Your task to perform on an android device: turn on priority inbox in the gmail app Image 0: 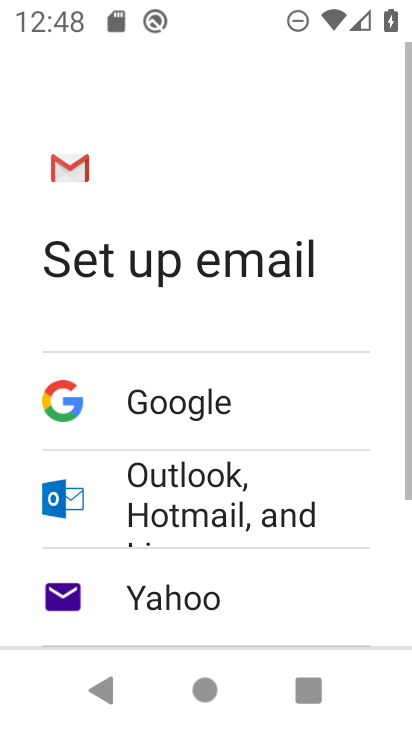
Step 0: press home button
Your task to perform on an android device: turn on priority inbox in the gmail app Image 1: 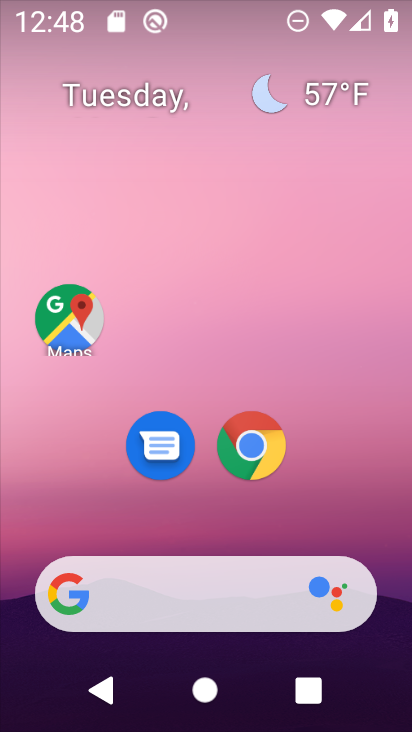
Step 1: drag from (360, 527) to (378, 189)
Your task to perform on an android device: turn on priority inbox in the gmail app Image 2: 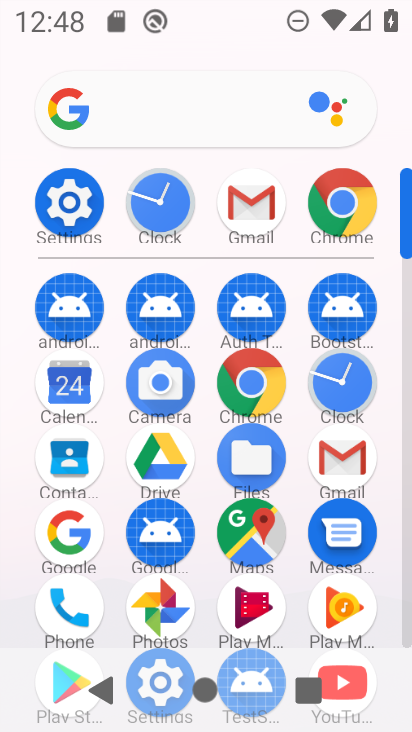
Step 2: click (340, 469)
Your task to perform on an android device: turn on priority inbox in the gmail app Image 3: 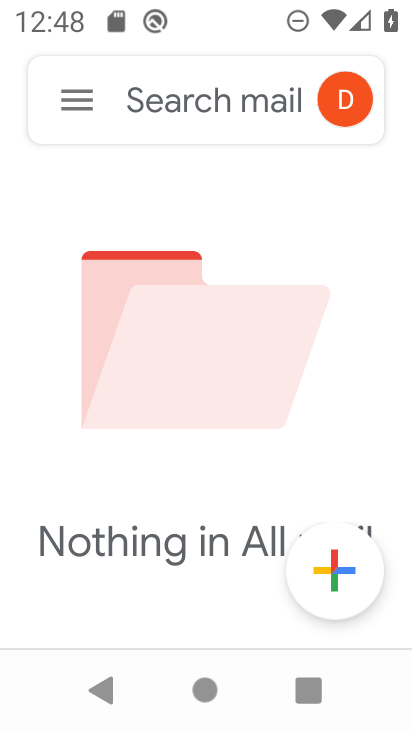
Step 3: click (72, 101)
Your task to perform on an android device: turn on priority inbox in the gmail app Image 4: 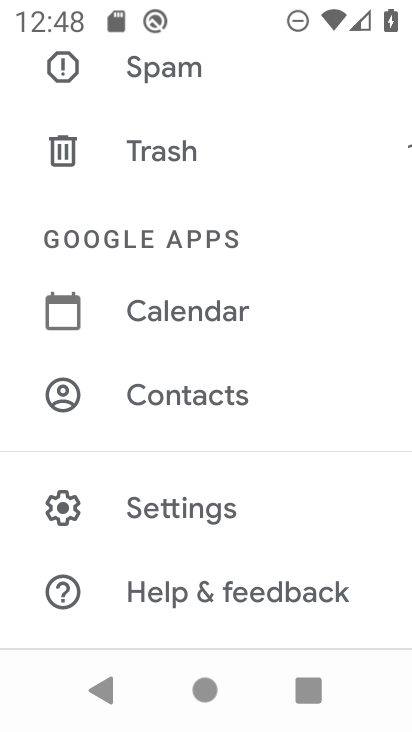
Step 4: drag from (314, 528) to (346, 390)
Your task to perform on an android device: turn on priority inbox in the gmail app Image 5: 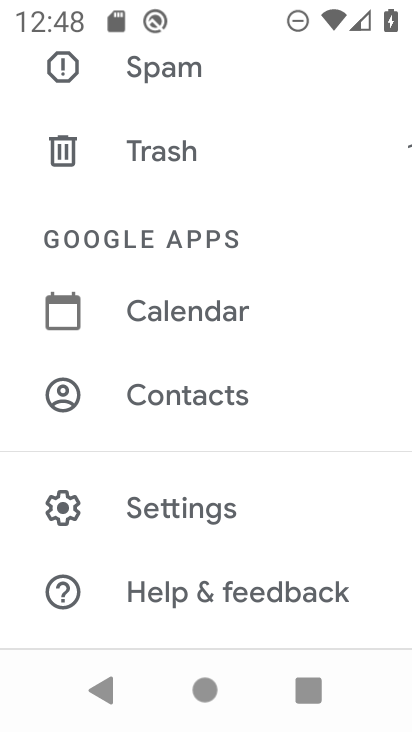
Step 5: click (249, 515)
Your task to perform on an android device: turn on priority inbox in the gmail app Image 6: 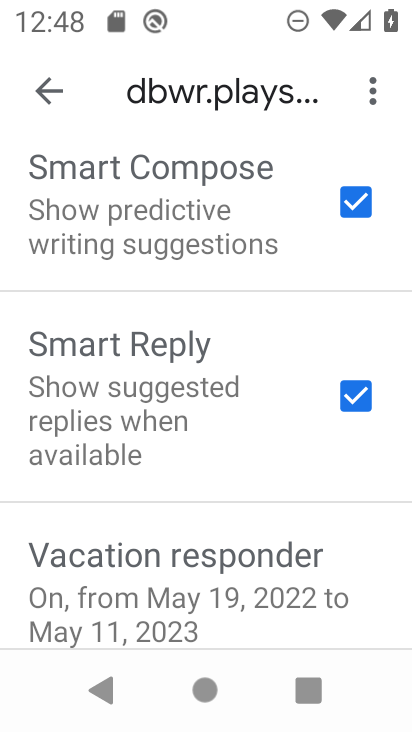
Step 6: drag from (300, 232) to (296, 381)
Your task to perform on an android device: turn on priority inbox in the gmail app Image 7: 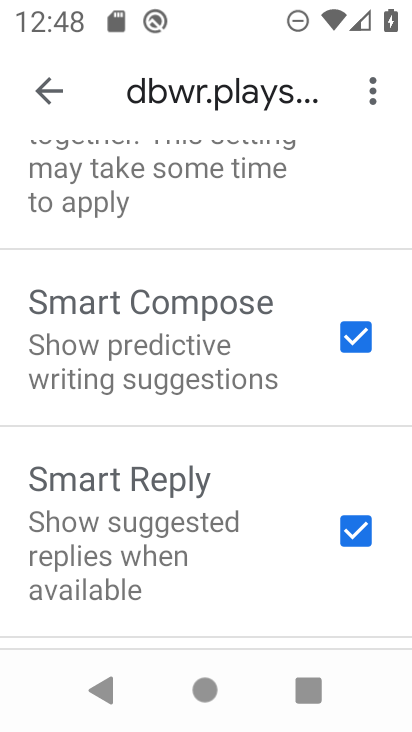
Step 7: drag from (316, 222) to (291, 377)
Your task to perform on an android device: turn on priority inbox in the gmail app Image 8: 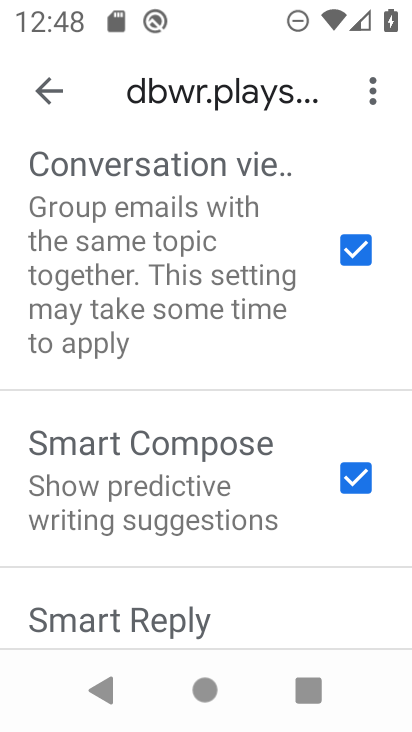
Step 8: drag from (297, 192) to (308, 353)
Your task to perform on an android device: turn on priority inbox in the gmail app Image 9: 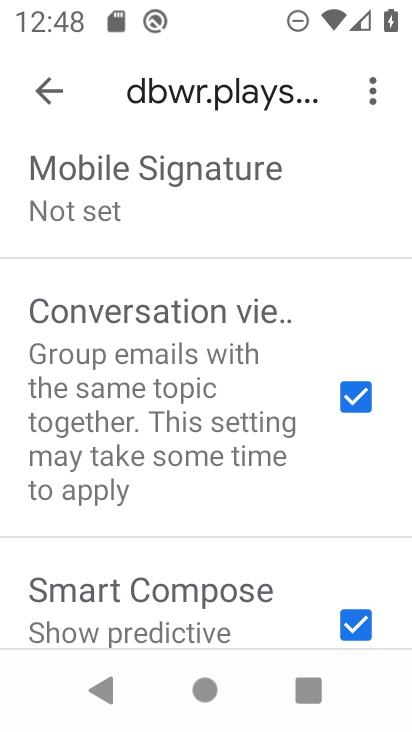
Step 9: drag from (308, 162) to (298, 308)
Your task to perform on an android device: turn on priority inbox in the gmail app Image 10: 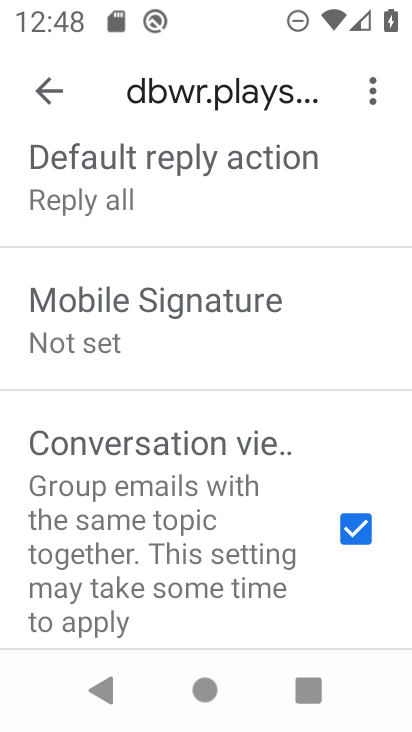
Step 10: drag from (320, 203) to (311, 335)
Your task to perform on an android device: turn on priority inbox in the gmail app Image 11: 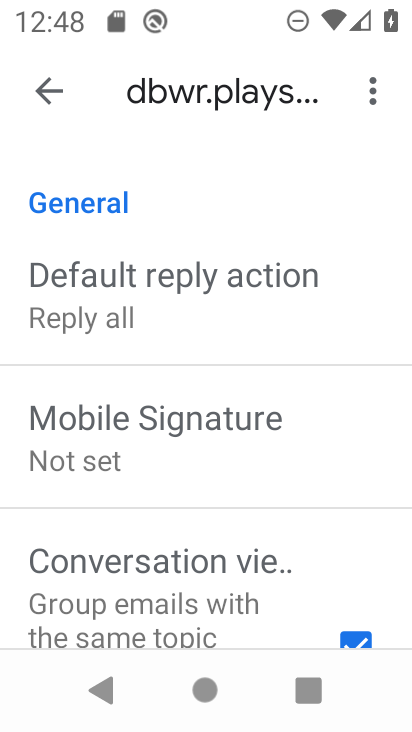
Step 11: drag from (314, 168) to (310, 305)
Your task to perform on an android device: turn on priority inbox in the gmail app Image 12: 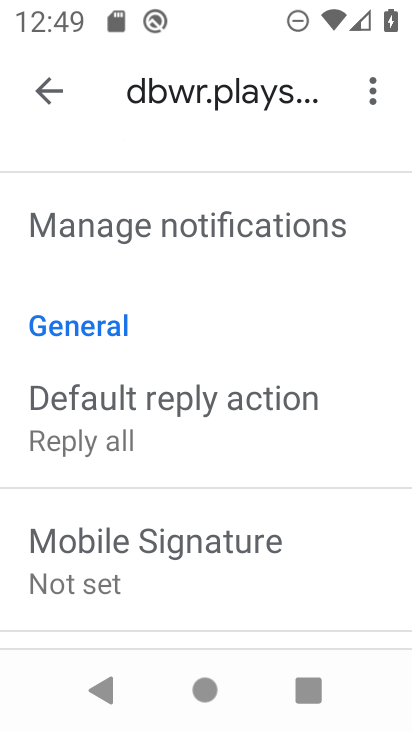
Step 12: drag from (305, 190) to (306, 308)
Your task to perform on an android device: turn on priority inbox in the gmail app Image 13: 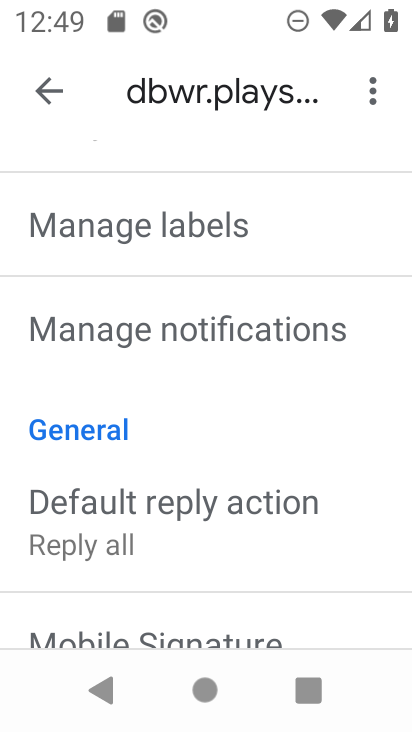
Step 13: drag from (312, 156) to (314, 286)
Your task to perform on an android device: turn on priority inbox in the gmail app Image 14: 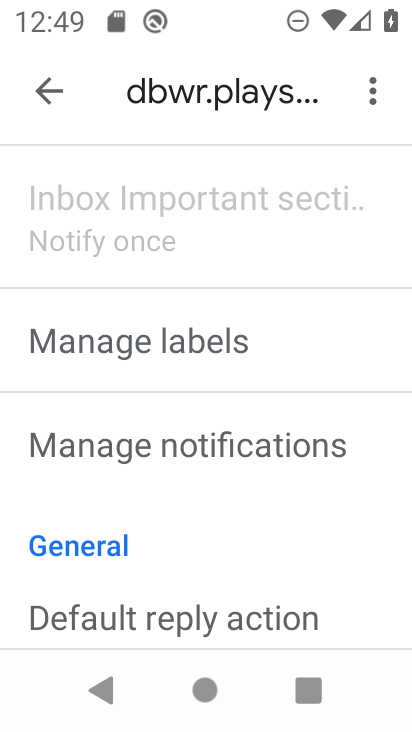
Step 14: drag from (339, 172) to (343, 311)
Your task to perform on an android device: turn on priority inbox in the gmail app Image 15: 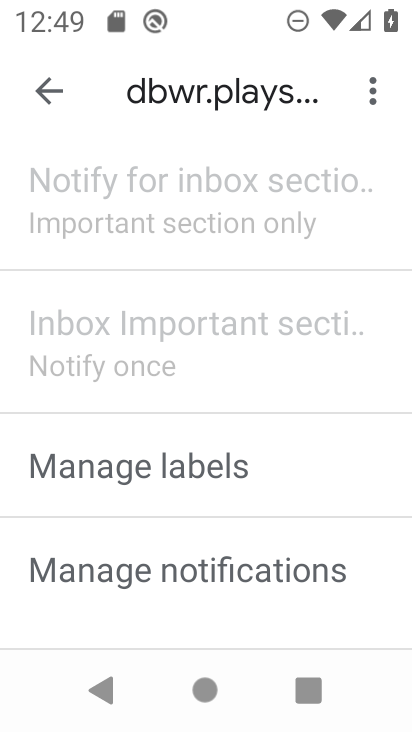
Step 15: drag from (323, 189) to (322, 397)
Your task to perform on an android device: turn on priority inbox in the gmail app Image 16: 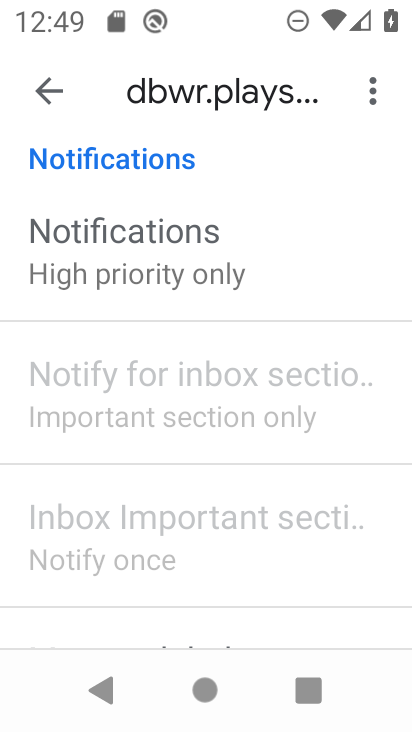
Step 16: drag from (301, 180) to (294, 366)
Your task to perform on an android device: turn on priority inbox in the gmail app Image 17: 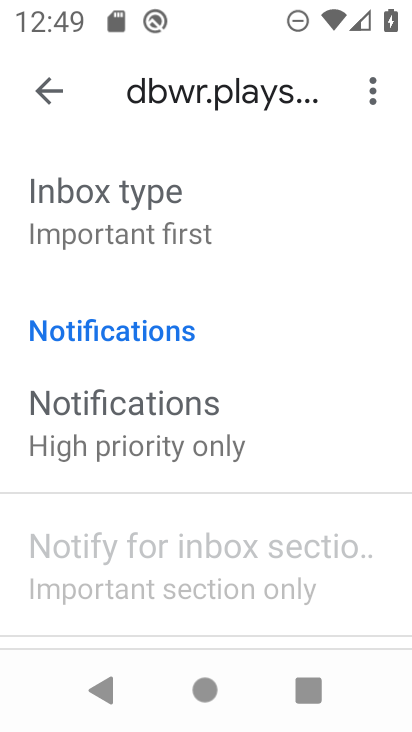
Step 17: click (155, 217)
Your task to perform on an android device: turn on priority inbox in the gmail app Image 18: 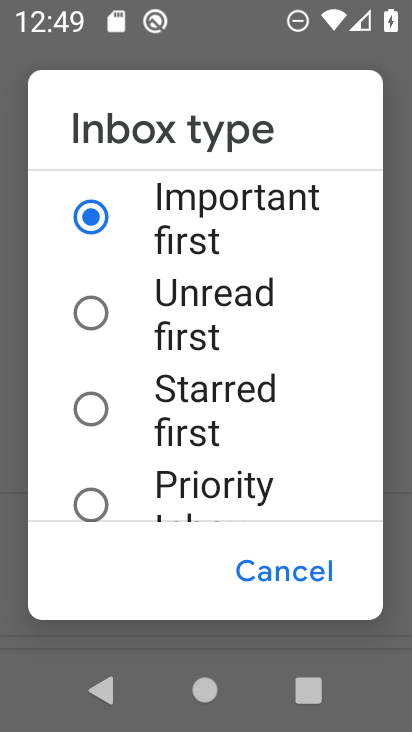
Step 18: drag from (293, 439) to (313, 275)
Your task to perform on an android device: turn on priority inbox in the gmail app Image 19: 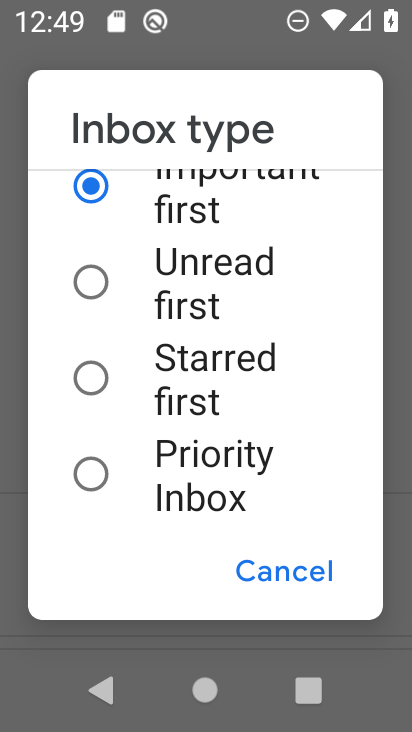
Step 19: click (104, 479)
Your task to perform on an android device: turn on priority inbox in the gmail app Image 20: 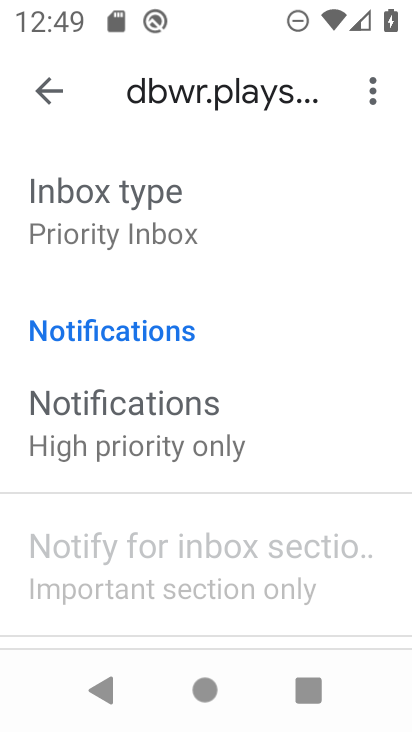
Step 20: task complete